Your task to perform on an android device: Do I have any events today? Image 0: 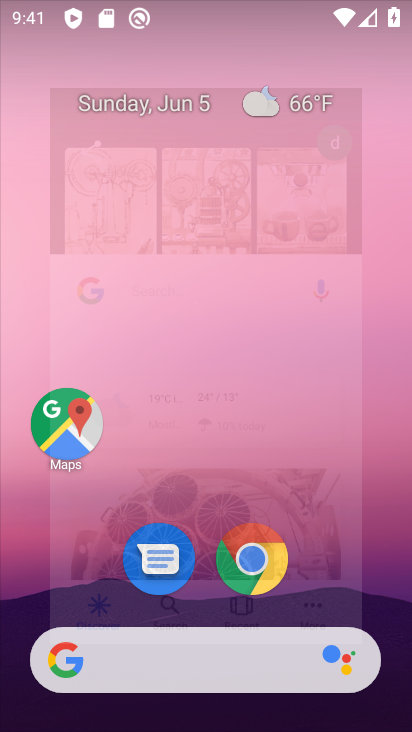
Step 0: press home button
Your task to perform on an android device: Do I have any events today? Image 1: 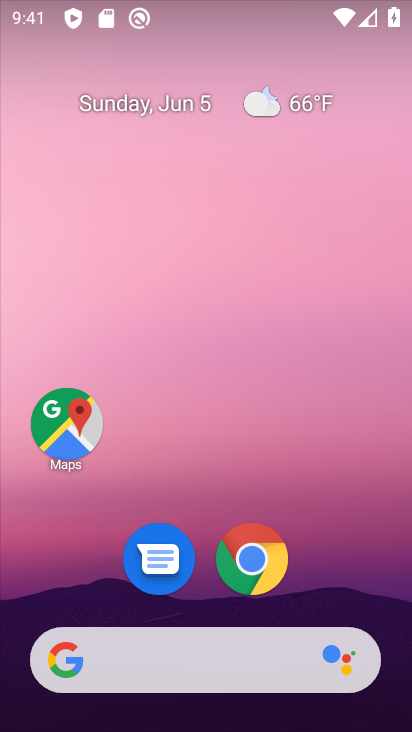
Step 1: drag from (212, 604) to (273, 2)
Your task to perform on an android device: Do I have any events today? Image 2: 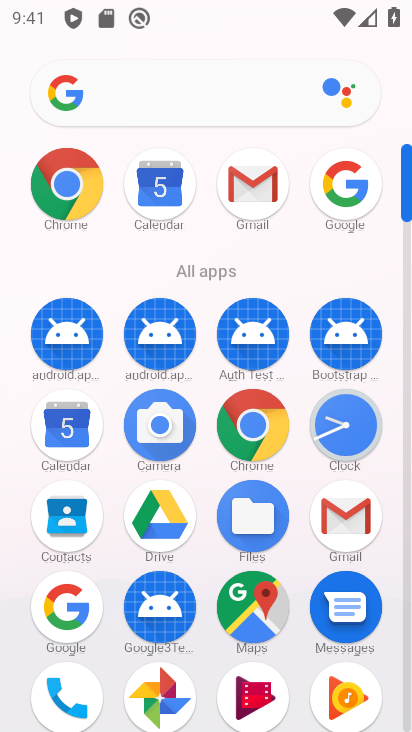
Step 2: click (68, 418)
Your task to perform on an android device: Do I have any events today? Image 3: 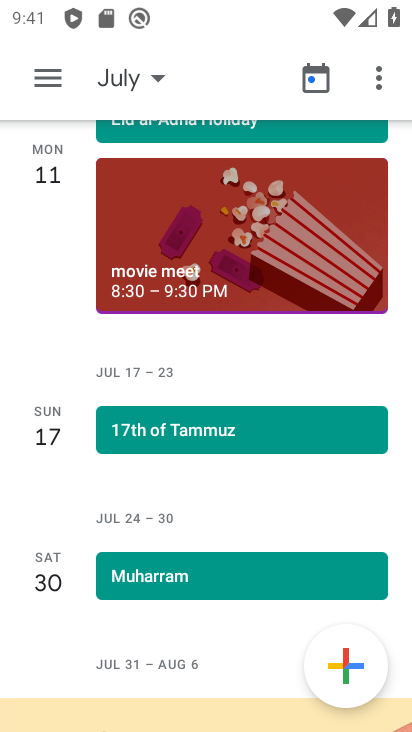
Step 3: click (151, 75)
Your task to perform on an android device: Do I have any events today? Image 4: 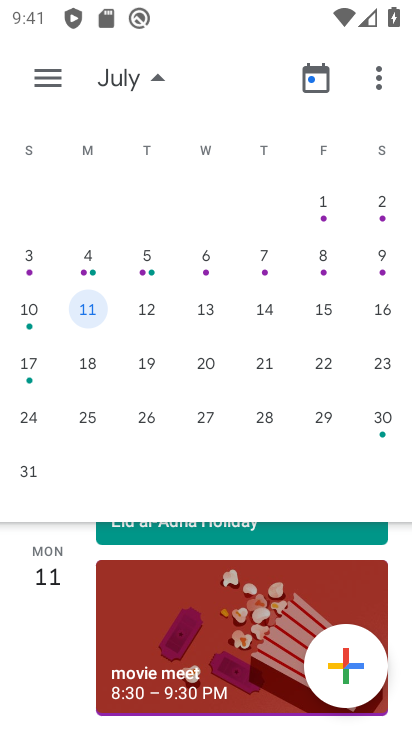
Step 4: drag from (42, 348) to (403, 338)
Your task to perform on an android device: Do I have any events today? Image 5: 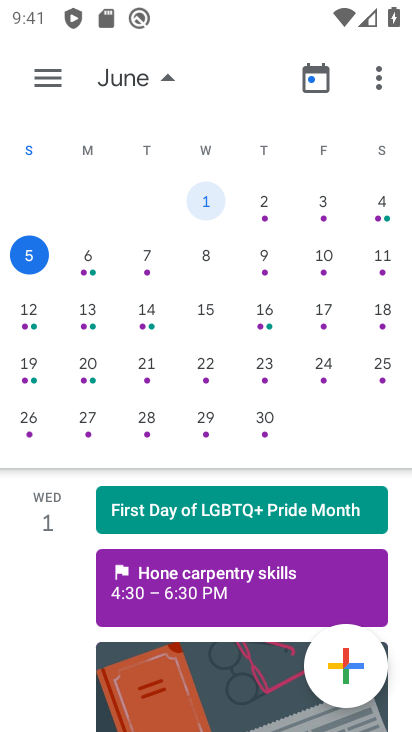
Step 5: click (24, 258)
Your task to perform on an android device: Do I have any events today? Image 6: 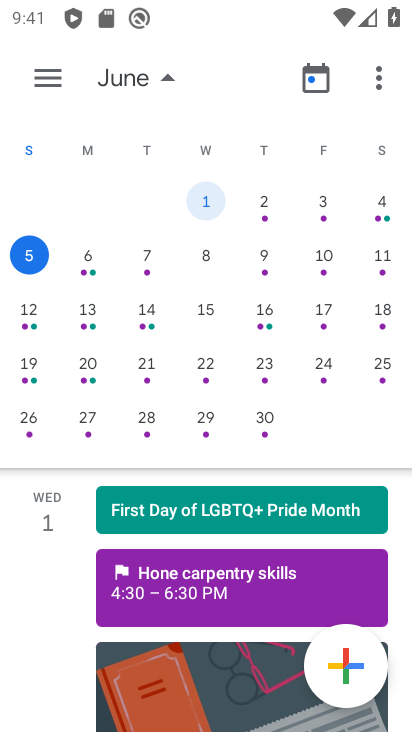
Step 6: click (44, 254)
Your task to perform on an android device: Do I have any events today? Image 7: 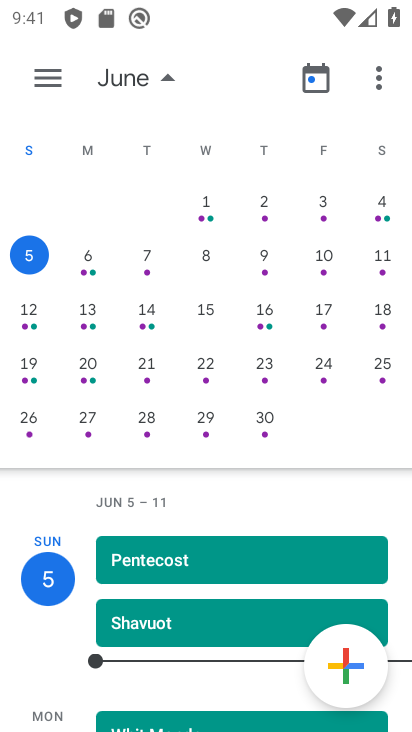
Step 7: drag from (70, 606) to (98, 343)
Your task to perform on an android device: Do I have any events today? Image 8: 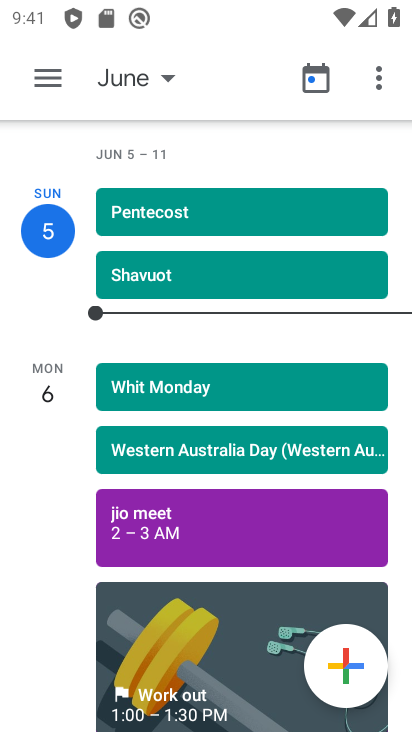
Step 8: click (84, 365)
Your task to perform on an android device: Do I have any events today? Image 9: 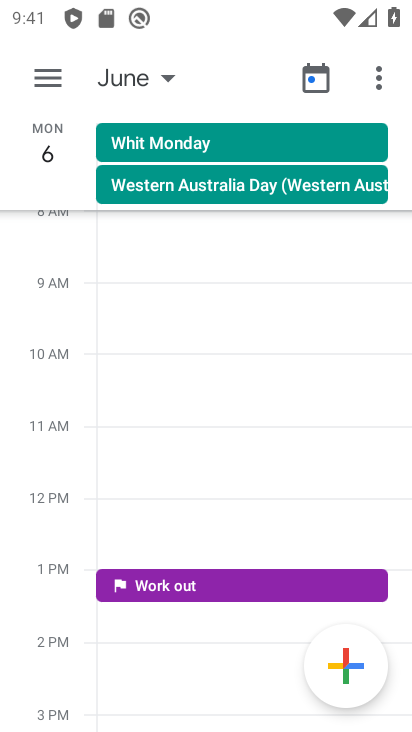
Step 9: click (62, 159)
Your task to perform on an android device: Do I have any events today? Image 10: 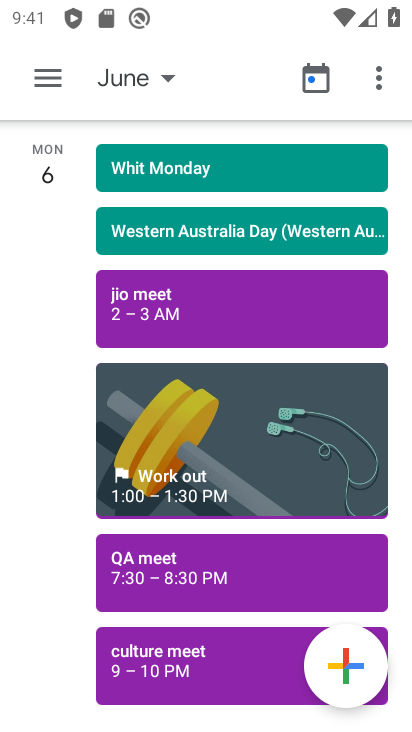
Step 10: drag from (66, 159) to (86, 511)
Your task to perform on an android device: Do I have any events today? Image 11: 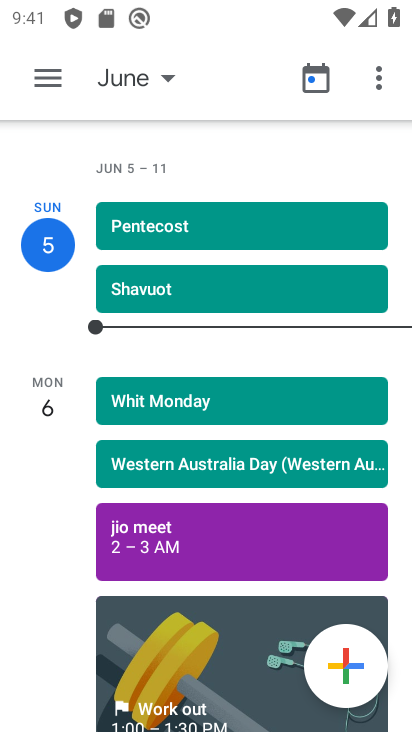
Step 11: click (59, 305)
Your task to perform on an android device: Do I have any events today? Image 12: 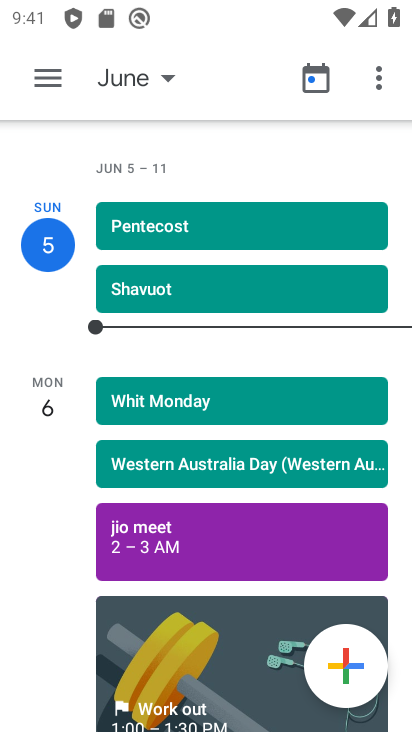
Step 12: click (79, 239)
Your task to perform on an android device: Do I have any events today? Image 13: 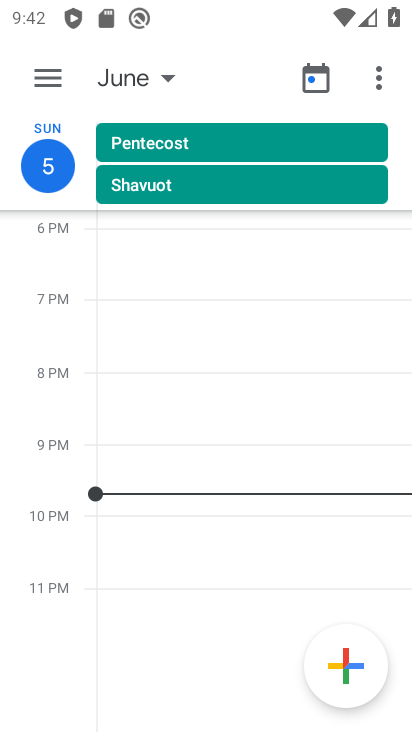
Step 13: task complete